Your task to perform on an android device: open a new tab in the chrome app Image 0: 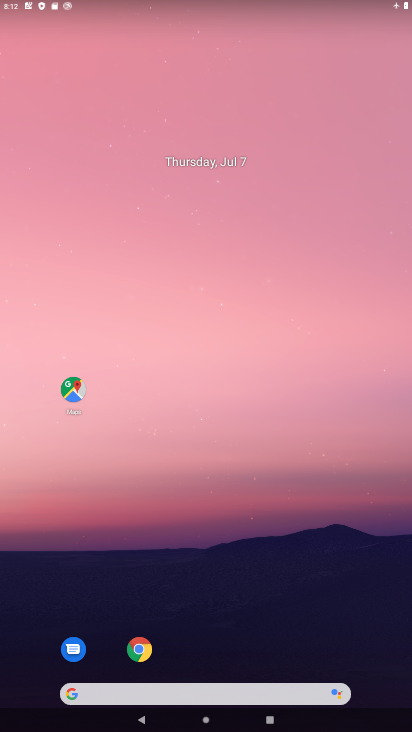
Step 0: drag from (269, 712) to (149, 87)
Your task to perform on an android device: open a new tab in the chrome app Image 1: 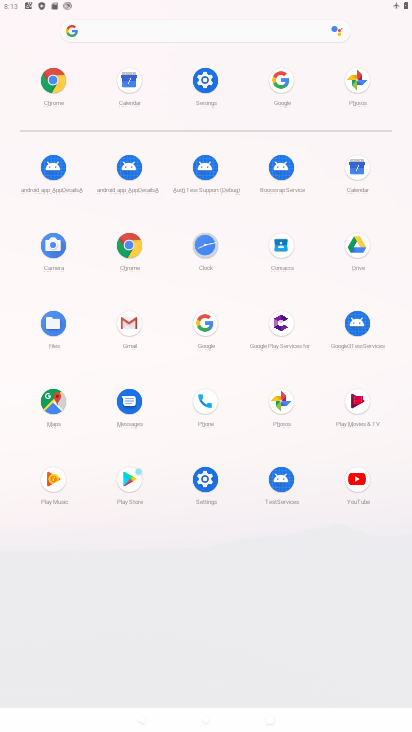
Step 1: click (130, 247)
Your task to perform on an android device: open a new tab in the chrome app Image 2: 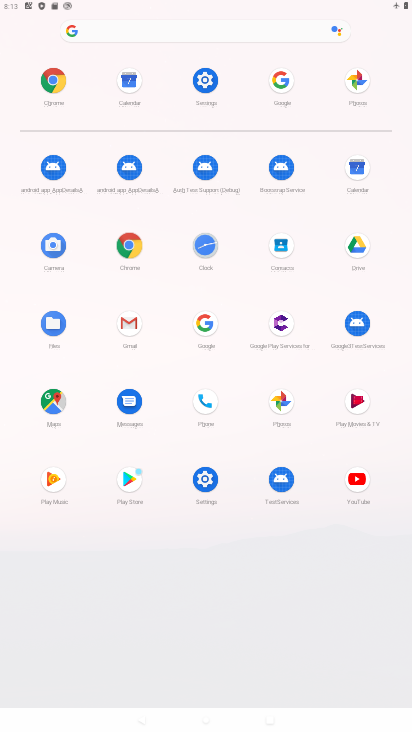
Step 2: click (131, 248)
Your task to perform on an android device: open a new tab in the chrome app Image 3: 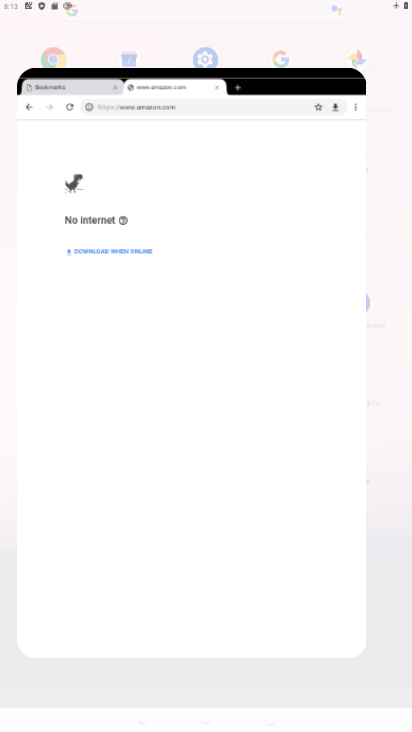
Step 3: click (131, 248)
Your task to perform on an android device: open a new tab in the chrome app Image 4: 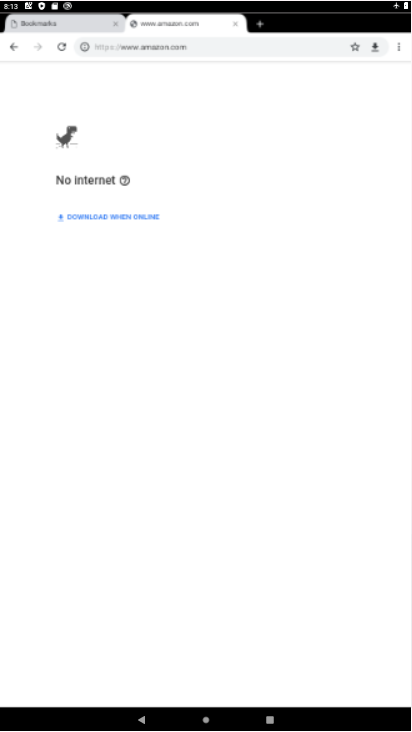
Step 4: click (138, 244)
Your task to perform on an android device: open a new tab in the chrome app Image 5: 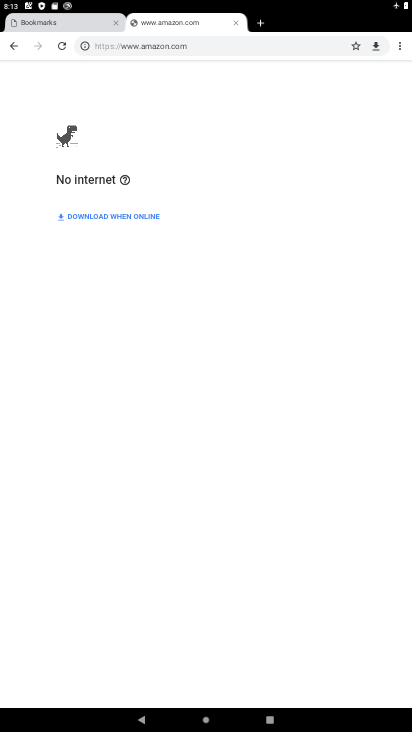
Step 5: drag from (402, 51) to (305, 37)
Your task to perform on an android device: open a new tab in the chrome app Image 6: 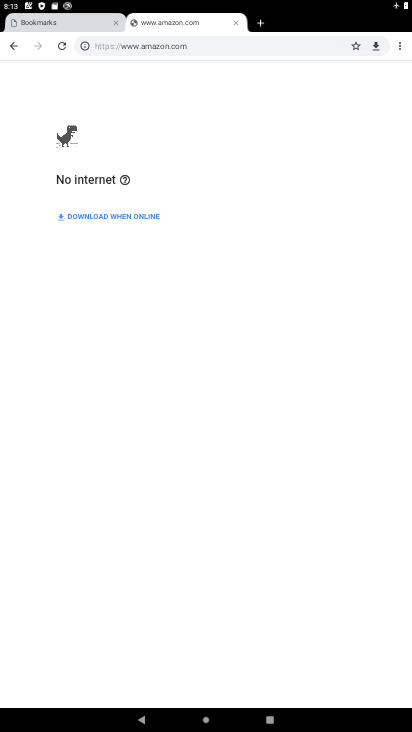
Step 6: click (294, 44)
Your task to perform on an android device: open a new tab in the chrome app Image 7: 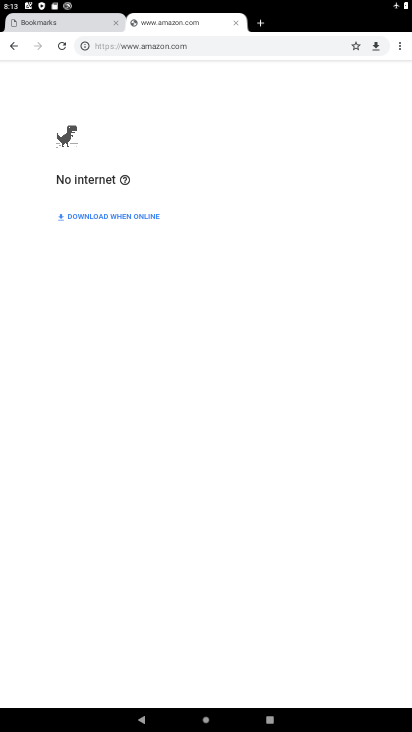
Step 7: click (295, 46)
Your task to perform on an android device: open a new tab in the chrome app Image 8: 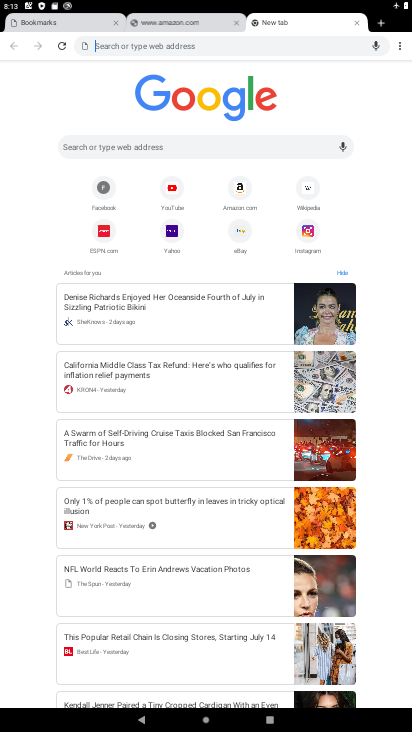
Step 8: task complete